Your task to perform on an android device: Open Chrome and go to the settings page Image 0: 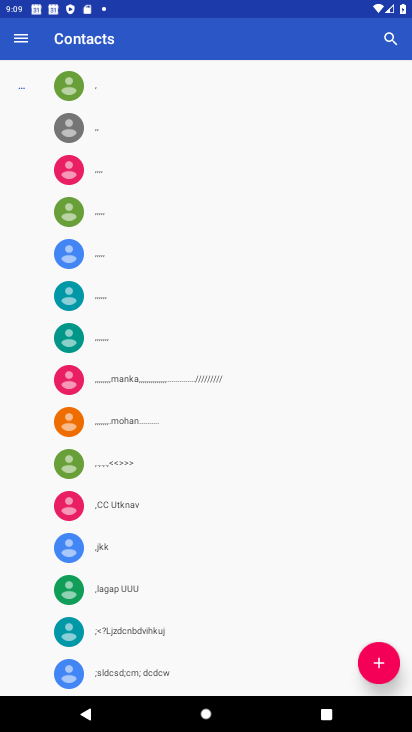
Step 0: press home button
Your task to perform on an android device: Open Chrome and go to the settings page Image 1: 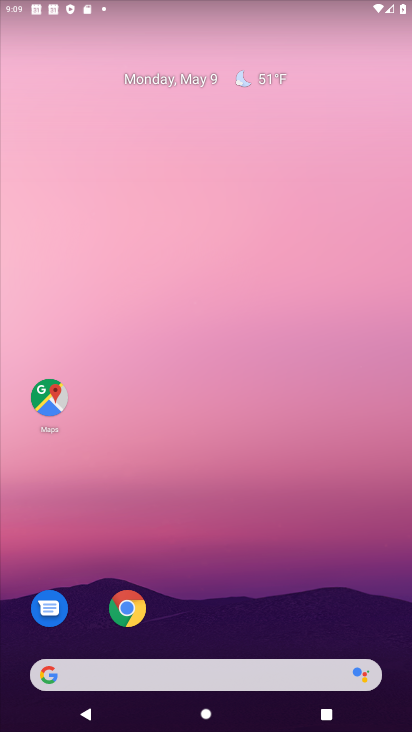
Step 1: drag from (307, 559) to (307, 79)
Your task to perform on an android device: Open Chrome and go to the settings page Image 2: 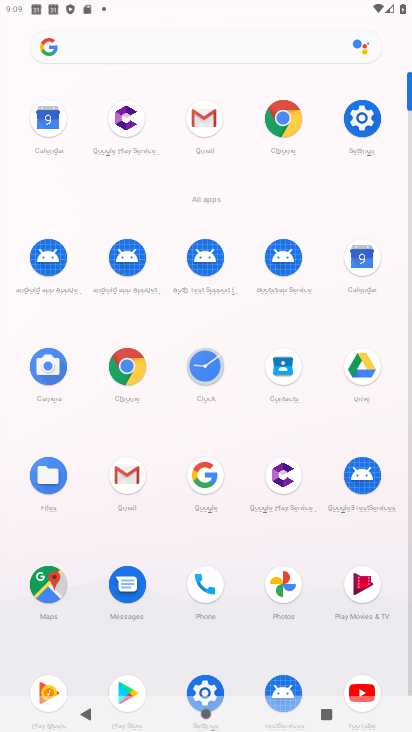
Step 2: click (286, 121)
Your task to perform on an android device: Open Chrome and go to the settings page Image 3: 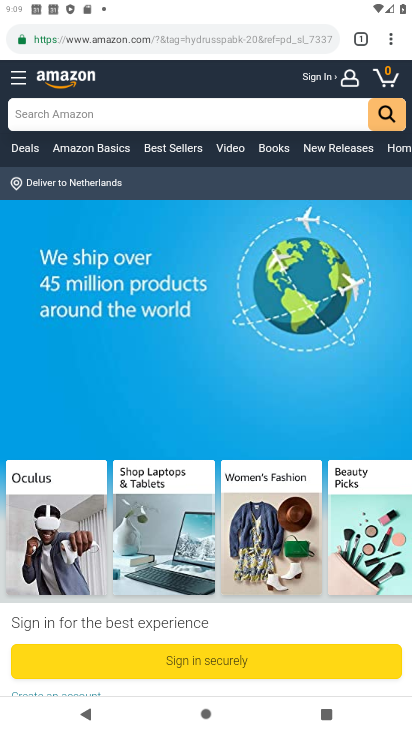
Step 3: task complete